Your task to perform on an android device: Open notification settings Image 0: 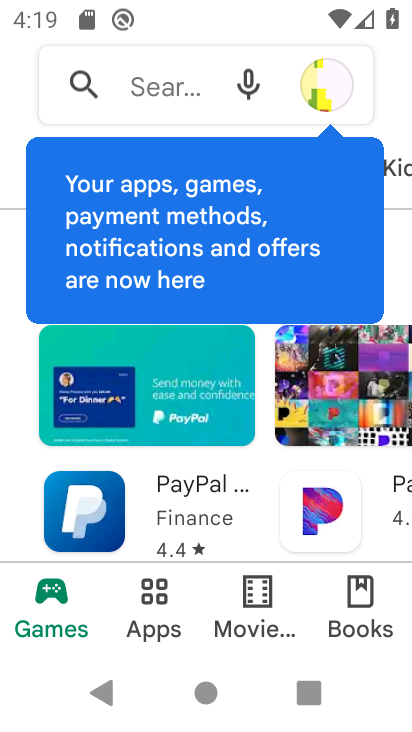
Step 0: press home button
Your task to perform on an android device: Open notification settings Image 1: 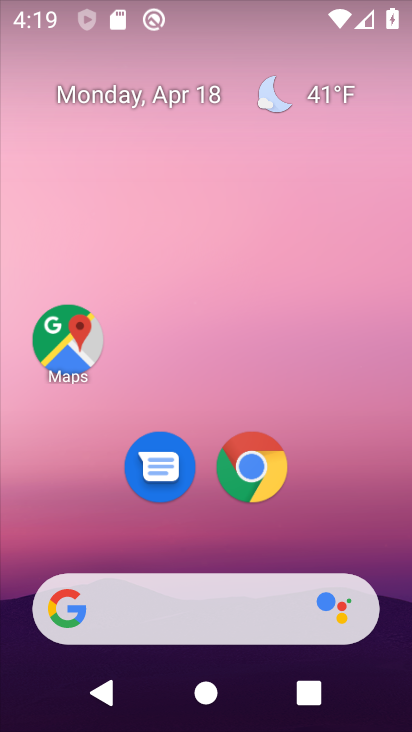
Step 1: drag from (224, 547) to (258, 173)
Your task to perform on an android device: Open notification settings Image 2: 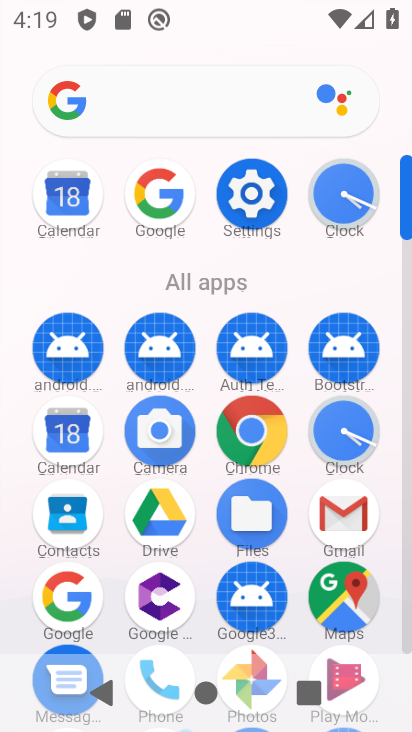
Step 2: click (257, 203)
Your task to perform on an android device: Open notification settings Image 3: 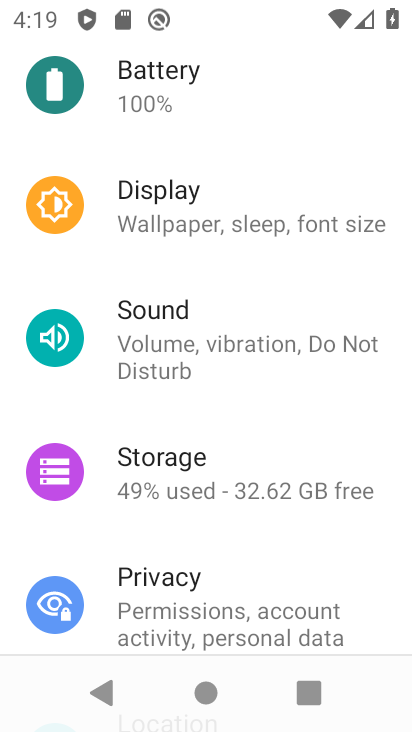
Step 3: drag from (257, 215) to (259, 484)
Your task to perform on an android device: Open notification settings Image 4: 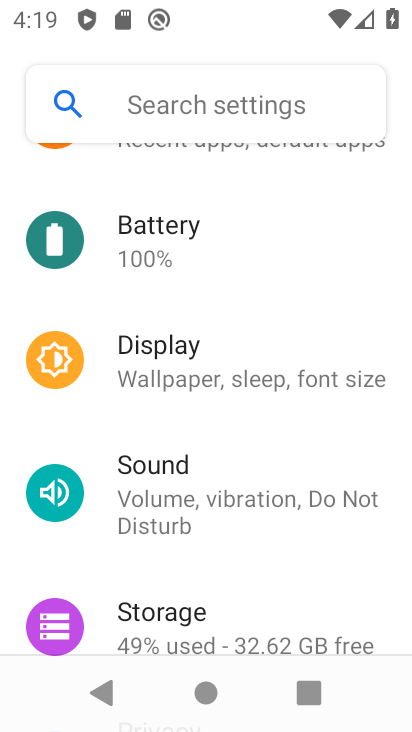
Step 4: drag from (265, 261) to (266, 526)
Your task to perform on an android device: Open notification settings Image 5: 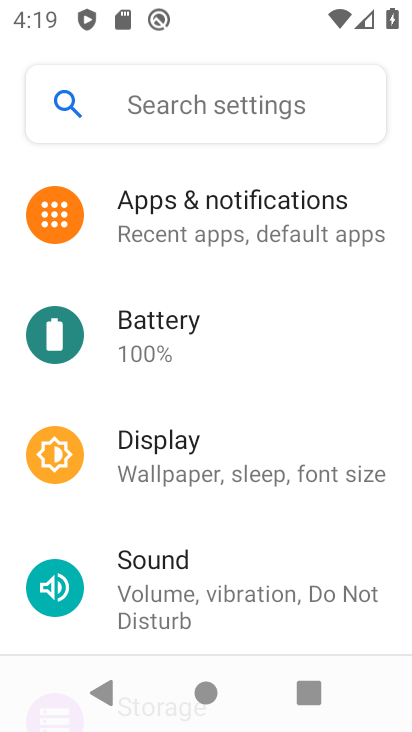
Step 5: click (201, 235)
Your task to perform on an android device: Open notification settings Image 6: 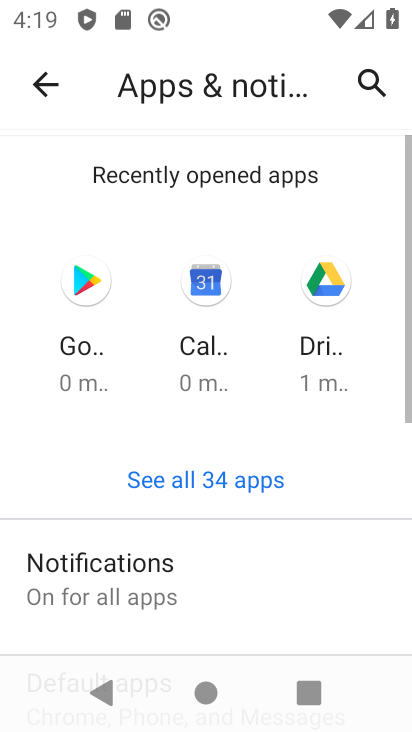
Step 6: drag from (214, 573) to (241, 321)
Your task to perform on an android device: Open notification settings Image 7: 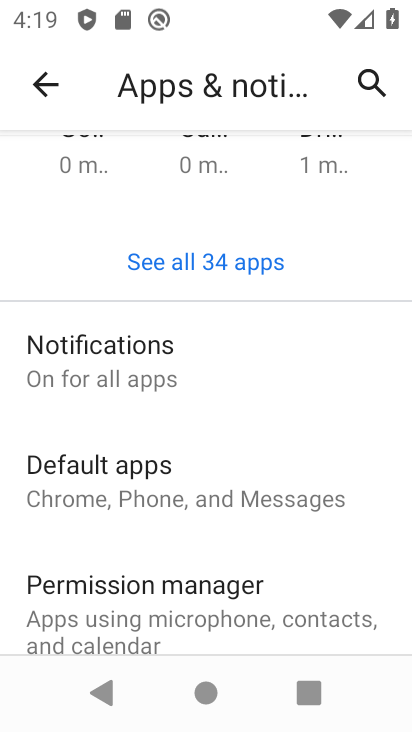
Step 7: click (115, 357)
Your task to perform on an android device: Open notification settings Image 8: 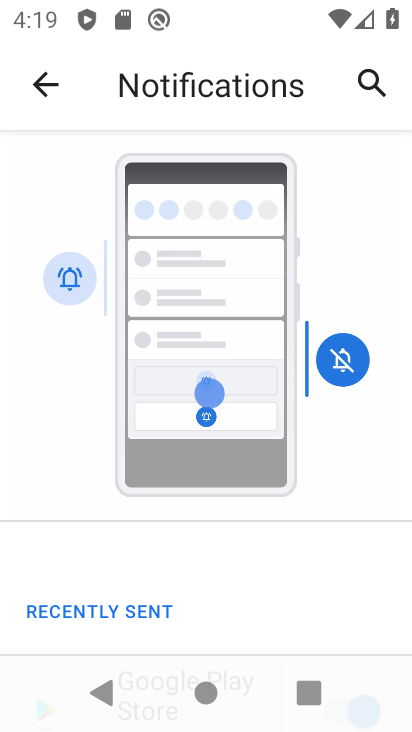
Step 8: drag from (241, 609) to (247, 247)
Your task to perform on an android device: Open notification settings Image 9: 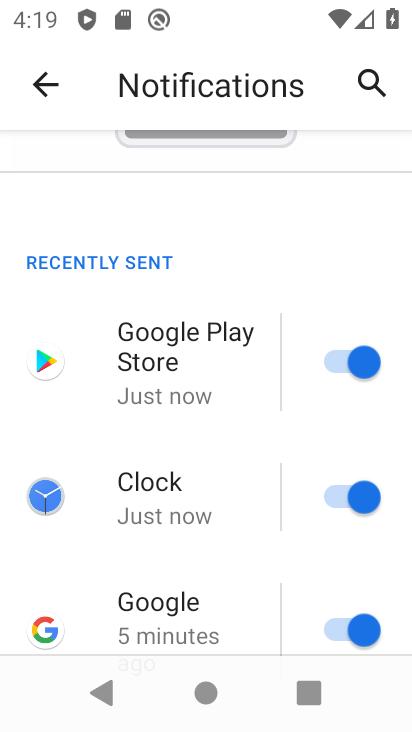
Step 9: drag from (261, 509) to (257, 158)
Your task to perform on an android device: Open notification settings Image 10: 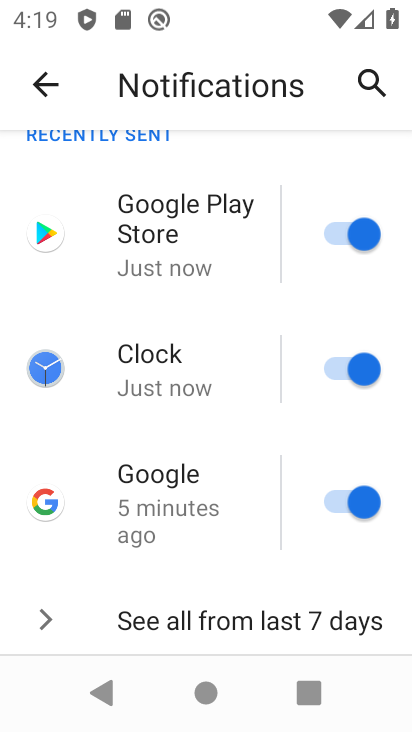
Step 10: click (249, 281)
Your task to perform on an android device: Open notification settings Image 11: 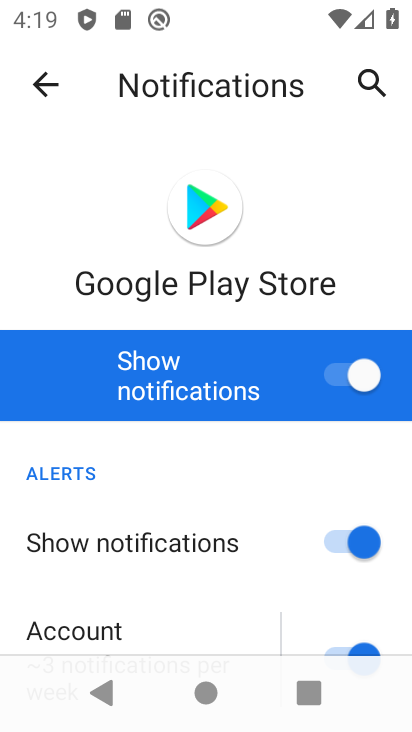
Step 11: click (107, 696)
Your task to perform on an android device: Open notification settings Image 12: 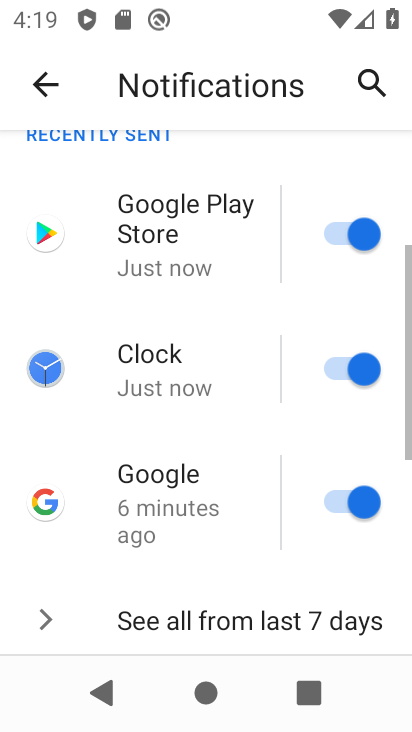
Step 12: drag from (188, 584) to (239, 241)
Your task to perform on an android device: Open notification settings Image 13: 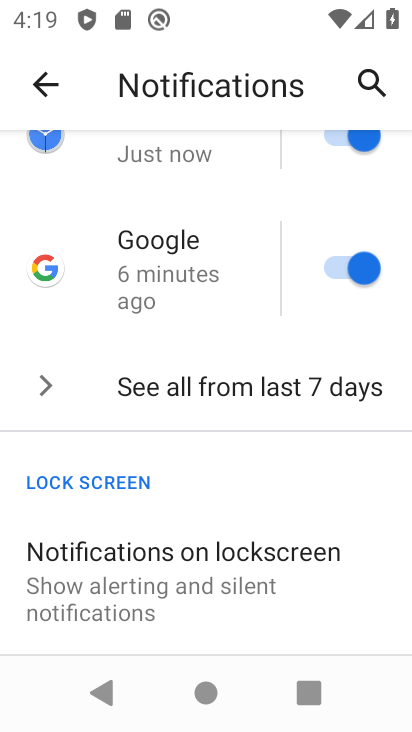
Step 13: drag from (261, 563) to (261, 304)
Your task to perform on an android device: Open notification settings Image 14: 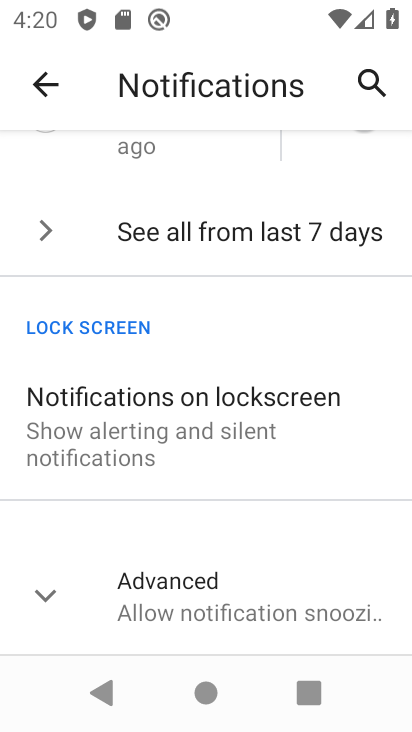
Step 14: click (261, 570)
Your task to perform on an android device: Open notification settings Image 15: 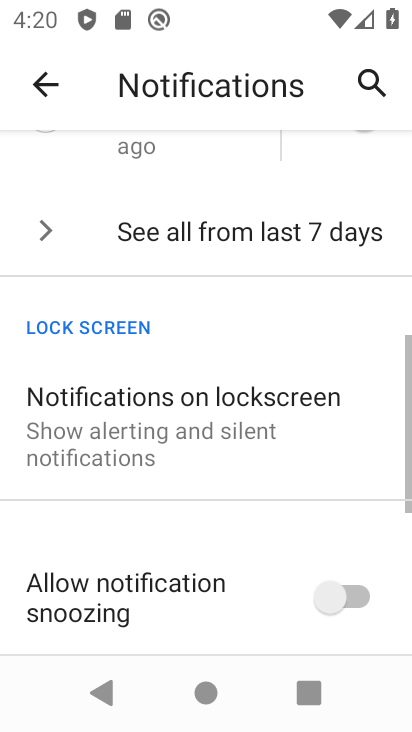
Step 15: drag from (220, 539) to (251, 248)
Your task to perform on an android device: Open notification settings Image 16: 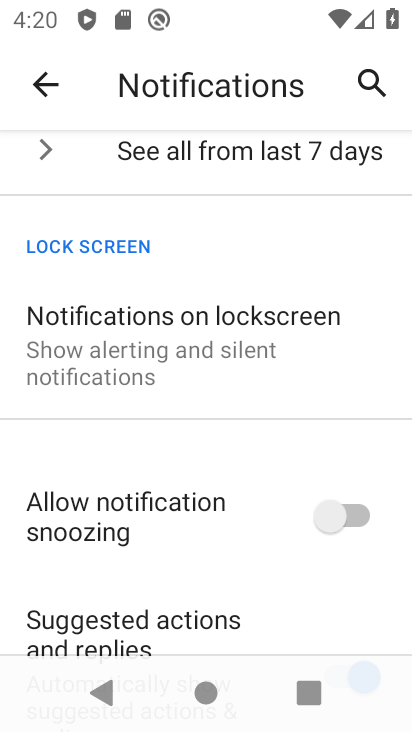
Step 16: drag from (252, 509) to (252, 266)
Your task to perform on an android device: Open notification settings Image 17: 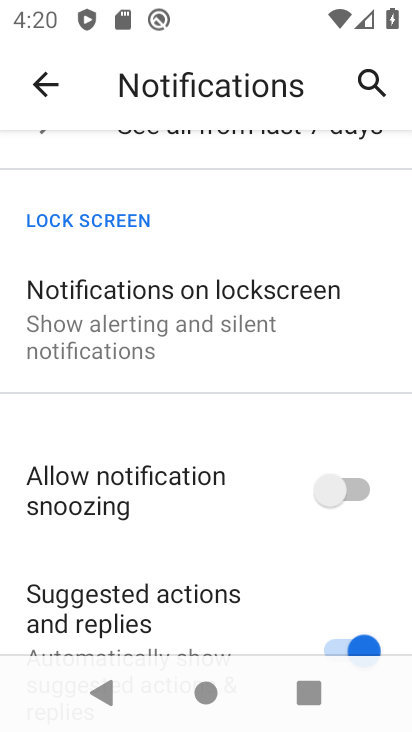
Step 17: click (212, 263)
Your task to perform on an android device: Open notification settings Image 18: 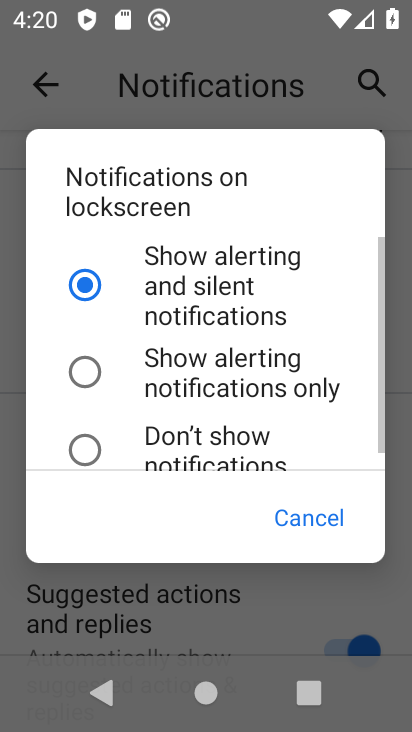
Step 18: click (323, 513)
Your task to perform on an android device: Open notification settings Image 19: 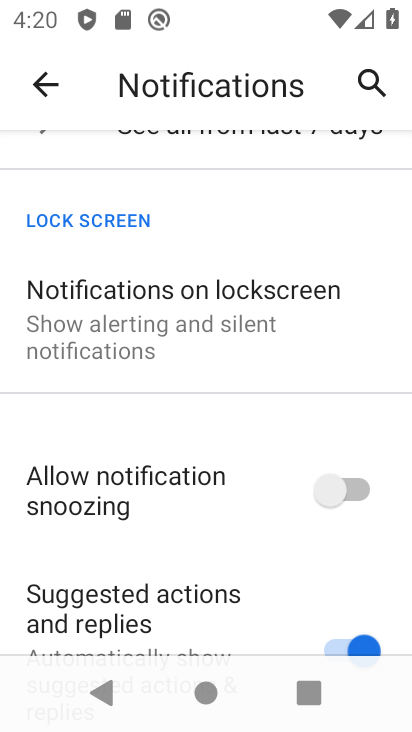
Step 19: task complete